Your task to perform on an android device: Search for hotels in Paris Image 0: 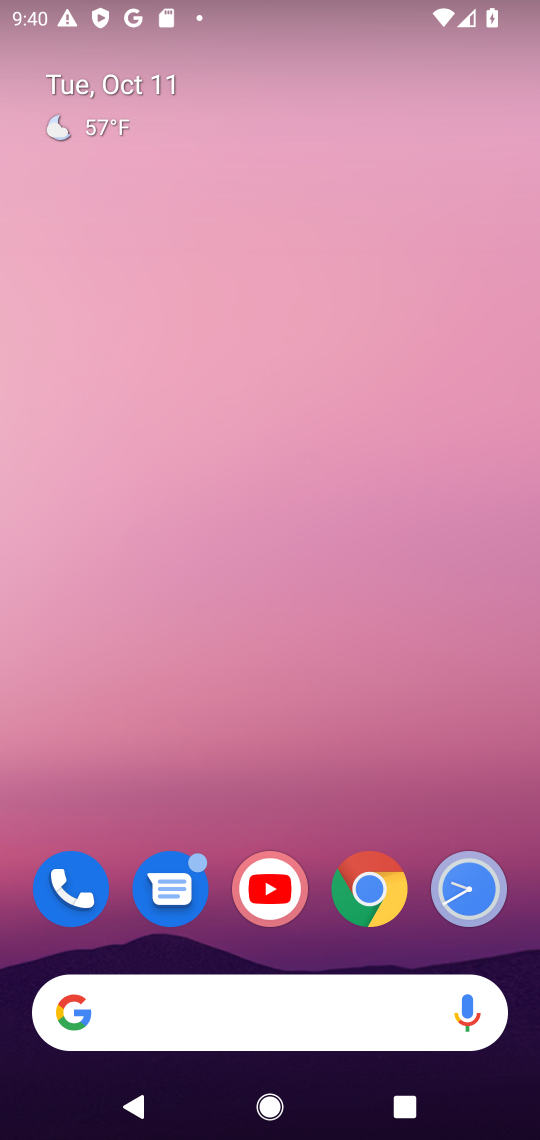
Step 0: click (249, 1007)
Your task to perform on an android device: Search for hotels in Paris Image 1: 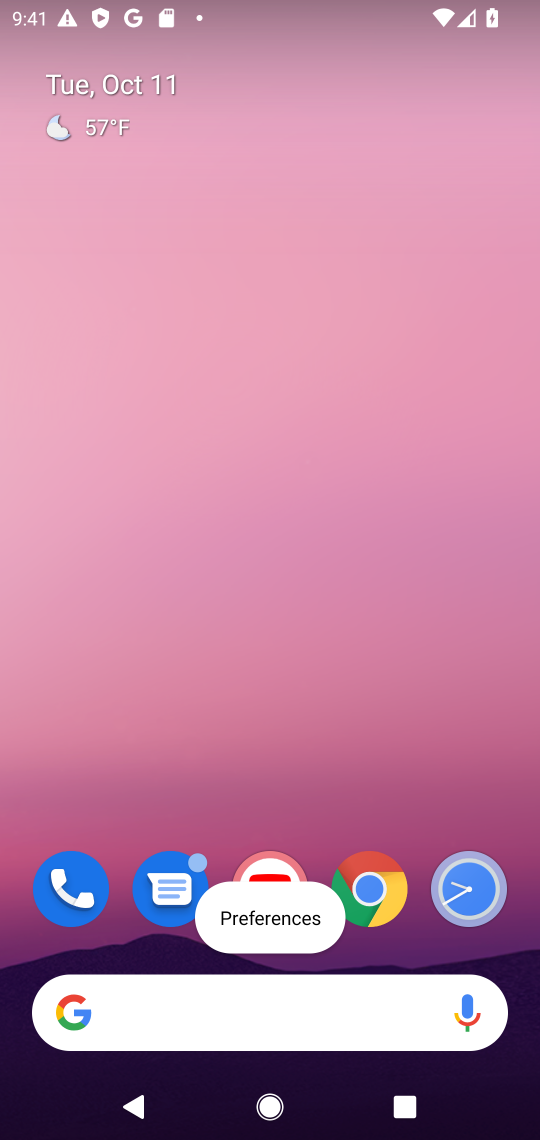
Step 1: click (153, 1016)
Your task to perform on an android device: Search for hotels in Paris Image 2: 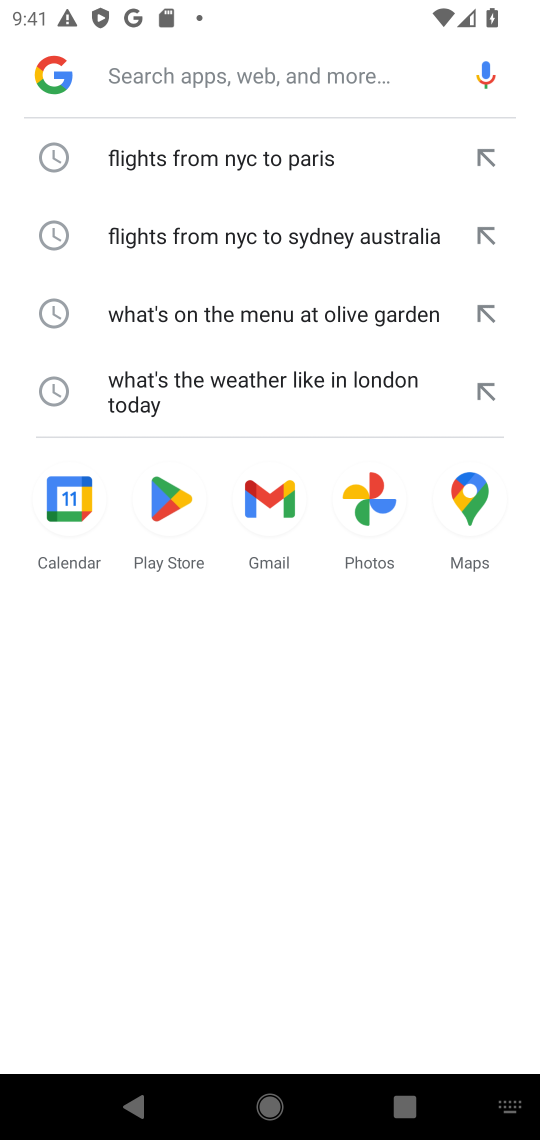
Step 2: click (167, 72)
Your task to perform on an android device: Search for hotels in Paris Image 3: 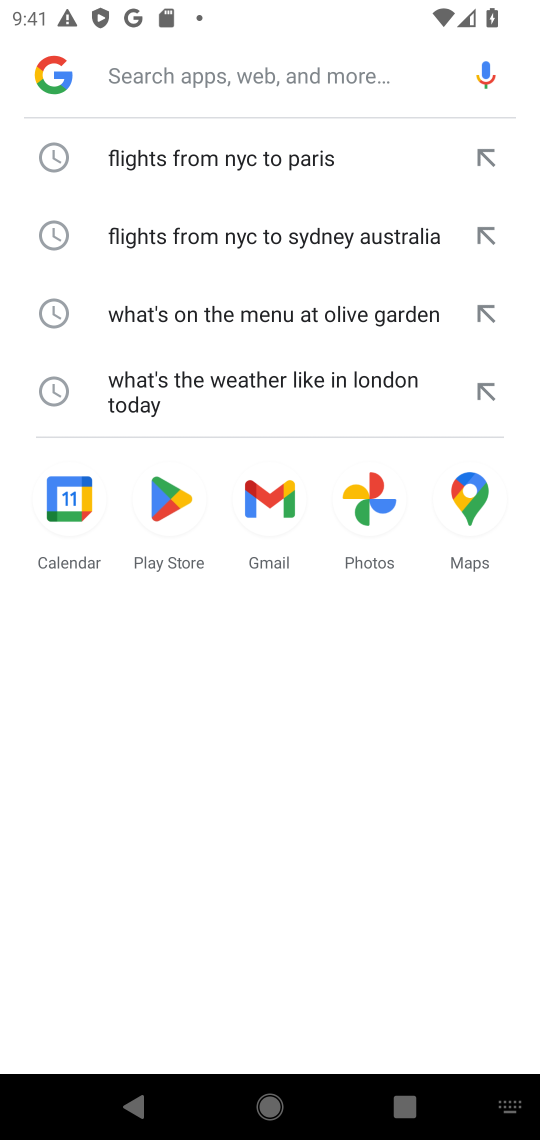
Step 3: type "hotels in Paris"
Your task to perform on an android device: Search for hotels in Paris Image 4: 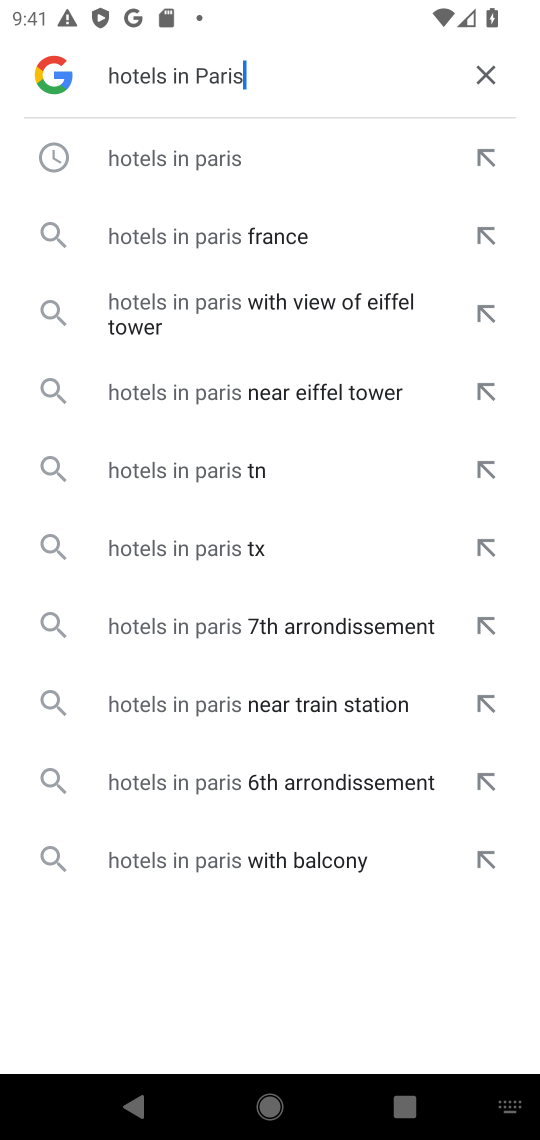
Step 4: click (142, 159)
Your task to perform on an android device: Search for hotels in Paris Image 5: 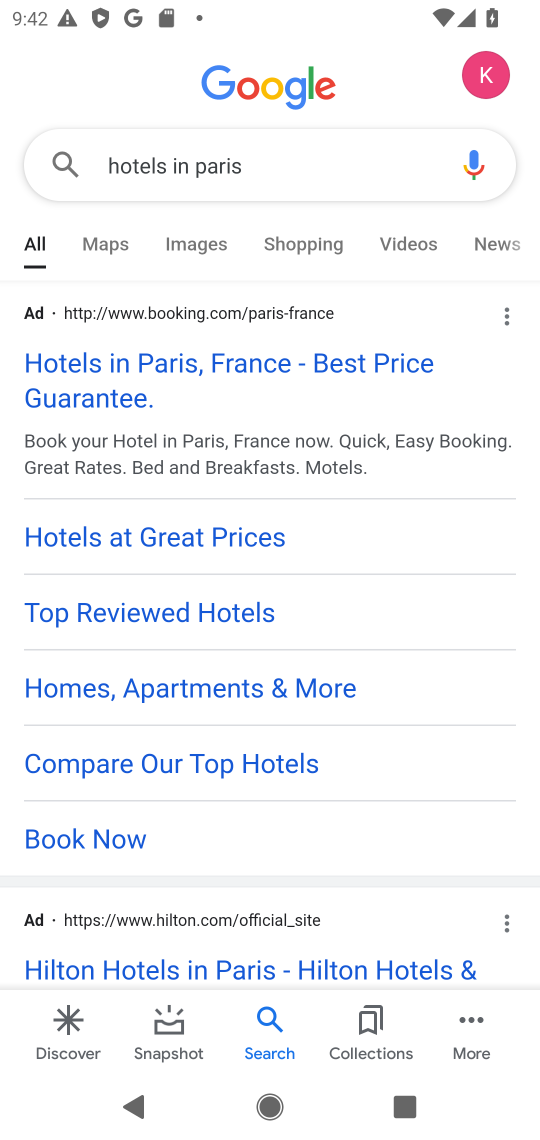
Step 5: task complete